Your task to perform on an android device: turn on javascript in the chrome app Image 0: 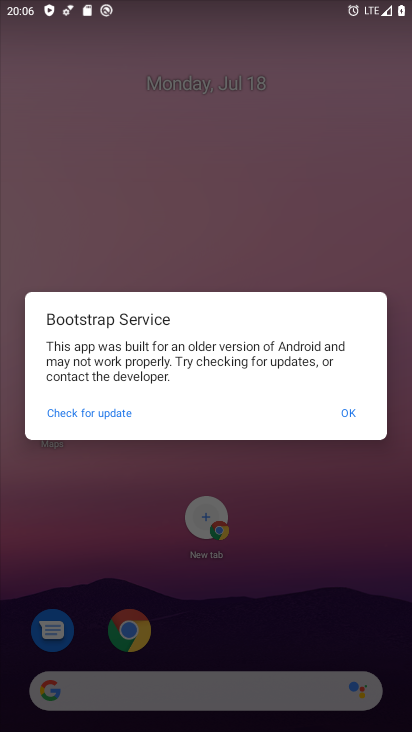
Step 0: click (356, 411)
Your task to perform on an android device: turn on javascript in the chrome app Image 1: 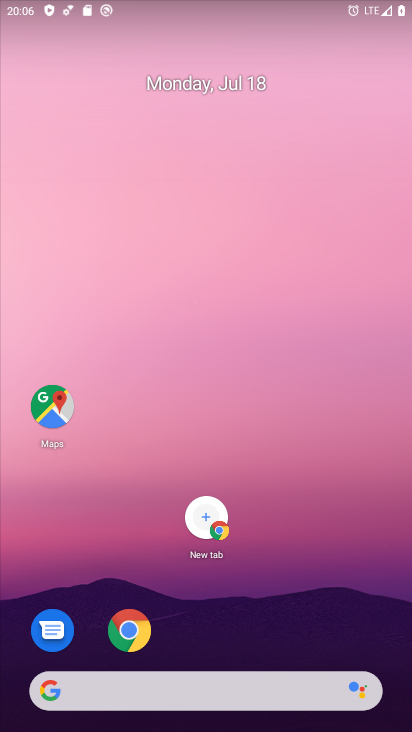
Step 1: click (128, 630)
Your task to perform on an android device: turn on javascript in the chrome app Image 2: 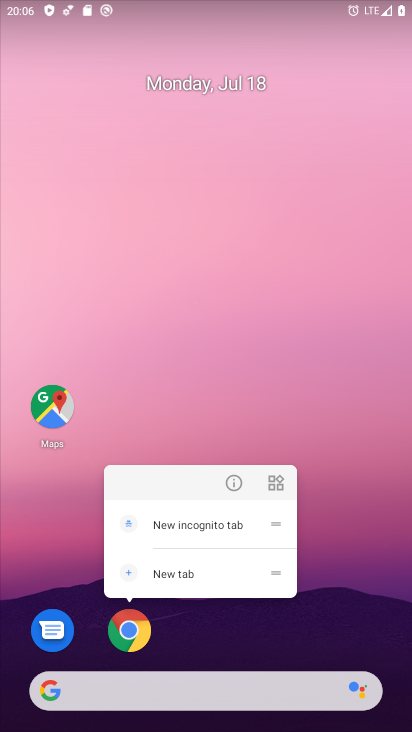
Step 2: click (128, 630)
Your task to perform on an android device: turn on javascript in the chrome app Image 3: 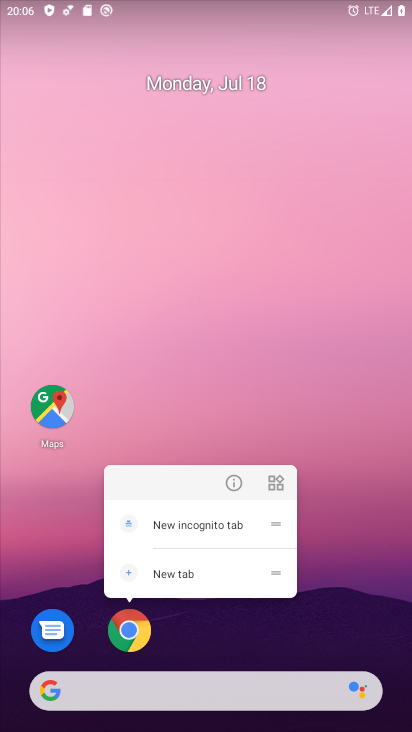
Step 3: drag from (182, 660) to (234, 42)
Your task to perform on an android device: turn on javascript in the chrome app Image 4: 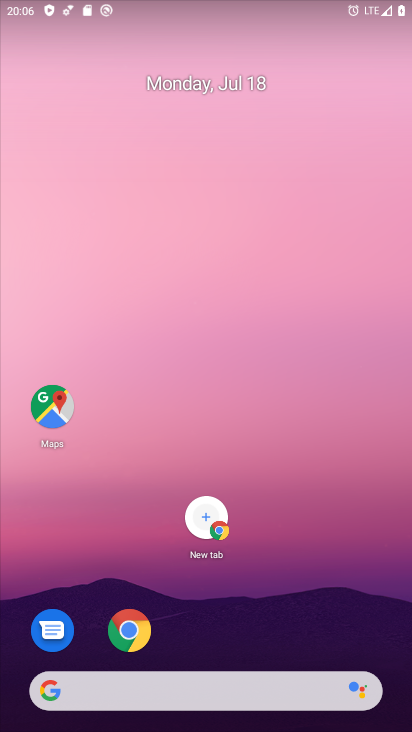
Step 4: drag from (212, 673) to (292, 67)
Your task to perform on an android device: turn on javascript in the chrome app Image 5: 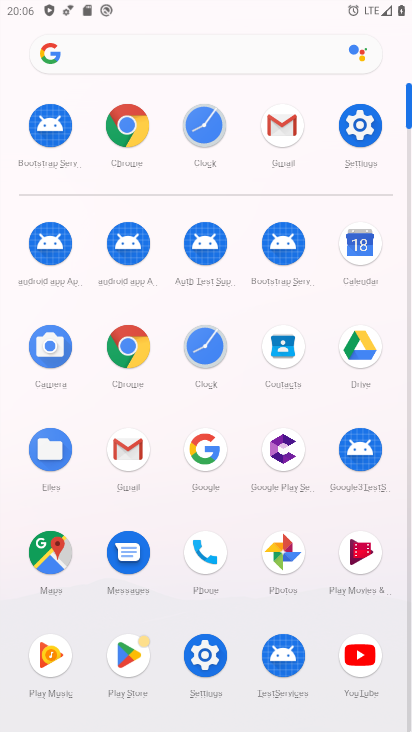
Step 5: click (144, 354)
Your task to perform on an android device: turn on javascript in the chrome app Image 6: 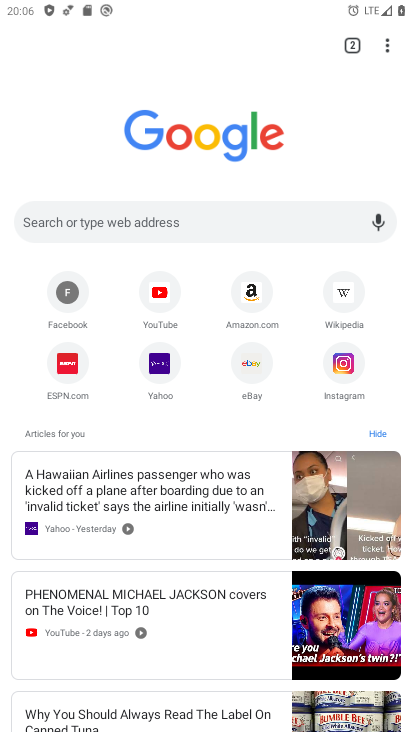
Step 6: click (385, 39)
Your task to perform on an android device: turn on javascript in the chrome app Image 7: 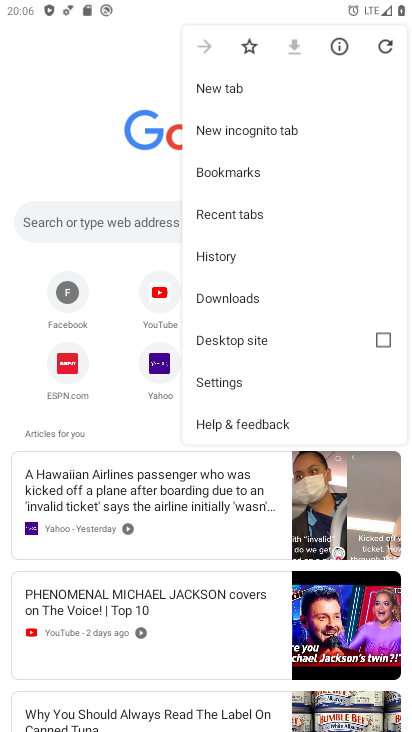
Step 7: click (222, 382)
Your task to perform on an android device: turn on javascript in the chrome app Image 8: 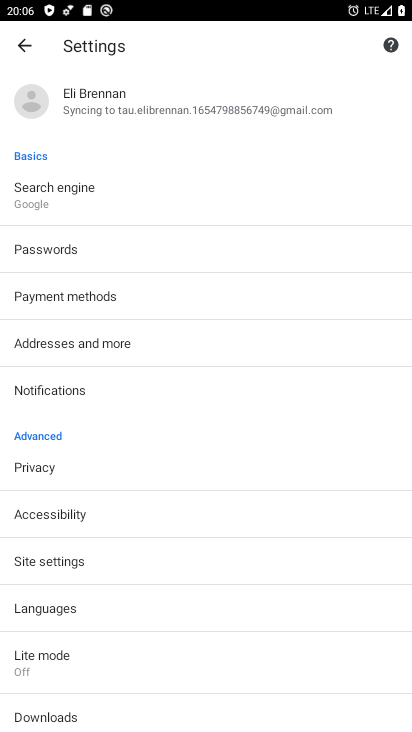
Step 8: click (72, 564)
Your task to perform on an android device: turn on javascript in the chrome app Image 9: 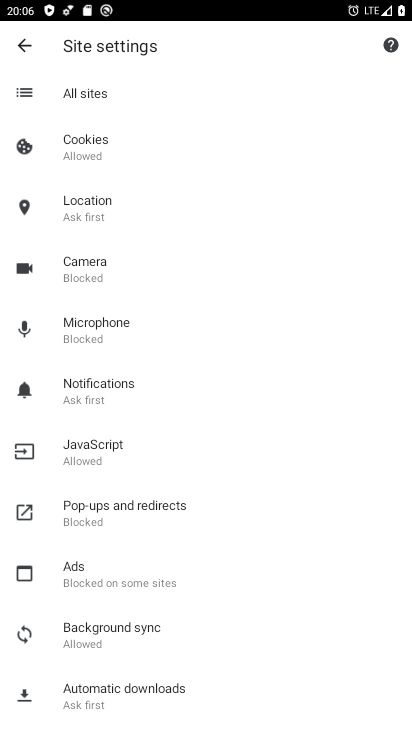
Step 9: click (108, 380)
Your task to perform on an android device: turn on javascript in the chrome app Image 10: 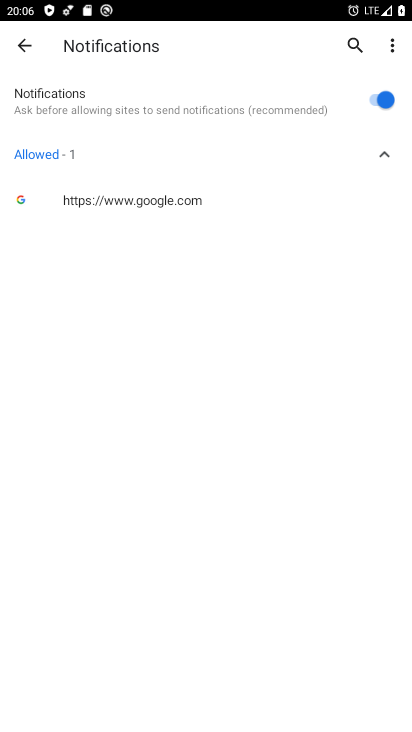
Step 10: click (37, 41)
Your task to perform on an android device: turn on javascript in the chrome app Image 11: 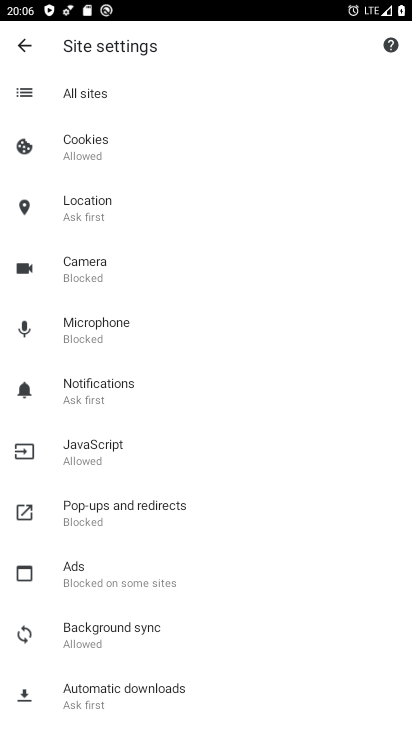
Step 11: click (103, 443)
Your task to perform on an android device: turn on javascript in the chrome app Image 12: 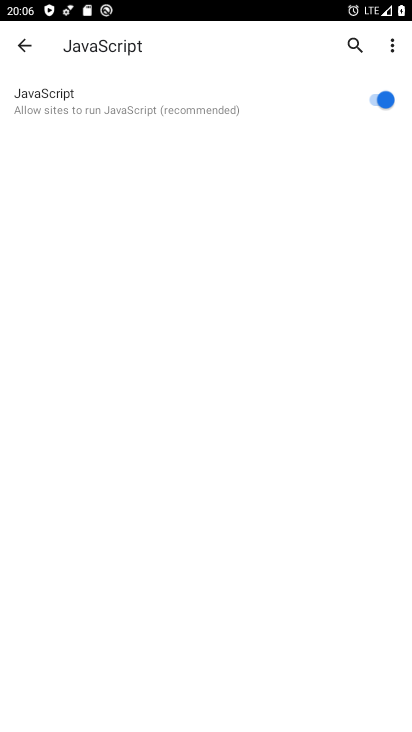
Step 12: task complete